Your task to perform on an android device: change notifications settings Image 0: 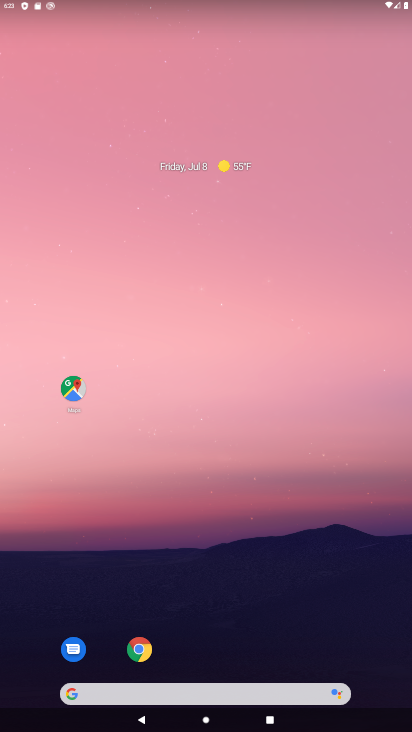
Step 0: drag from (289, 692) to (353, 1)
Your task to perform on an android device: change notifications settings Image 1: 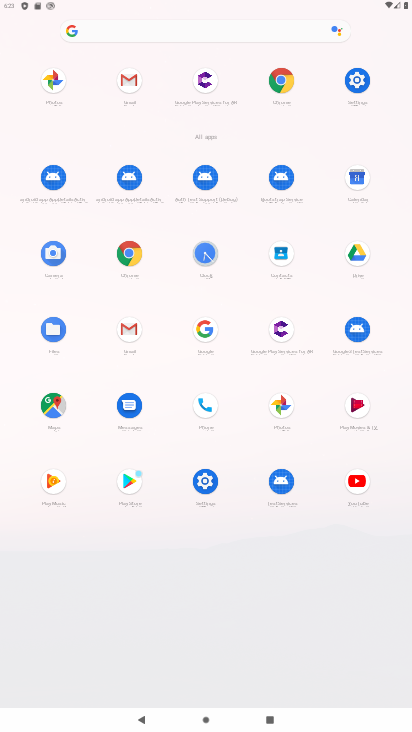
Step 1: click (354, 90)
Your task to perform on an android device: change notifications settings Image 2: 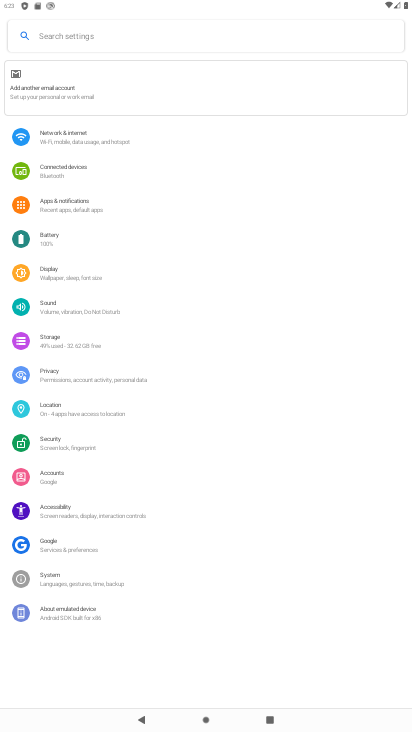
Step 2: click (77, 205)
Your task to perform on an android device: change notifications settings Image 3: 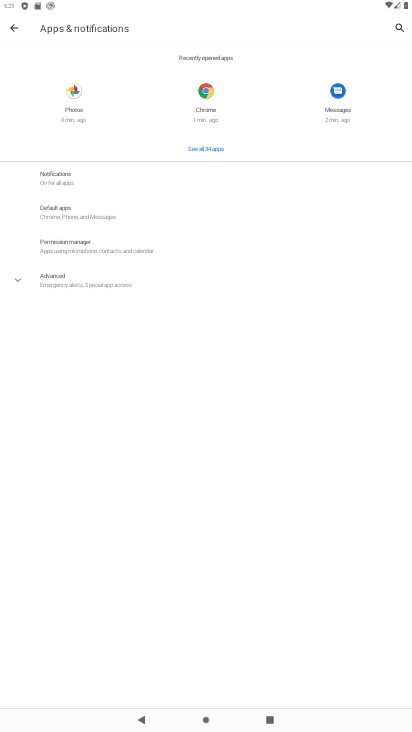
Step 3: click (69, 175)
Your task to perform on an android device: change notifications settings Image 4: 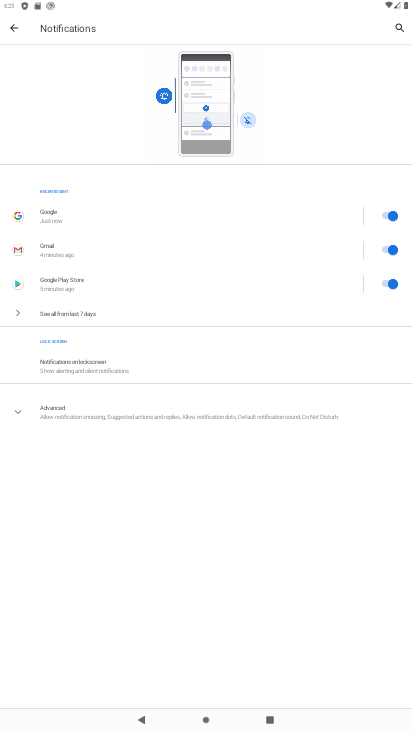
Step 4: task complete